Your task to perform on an android device: turn off sleep mode Image 0: 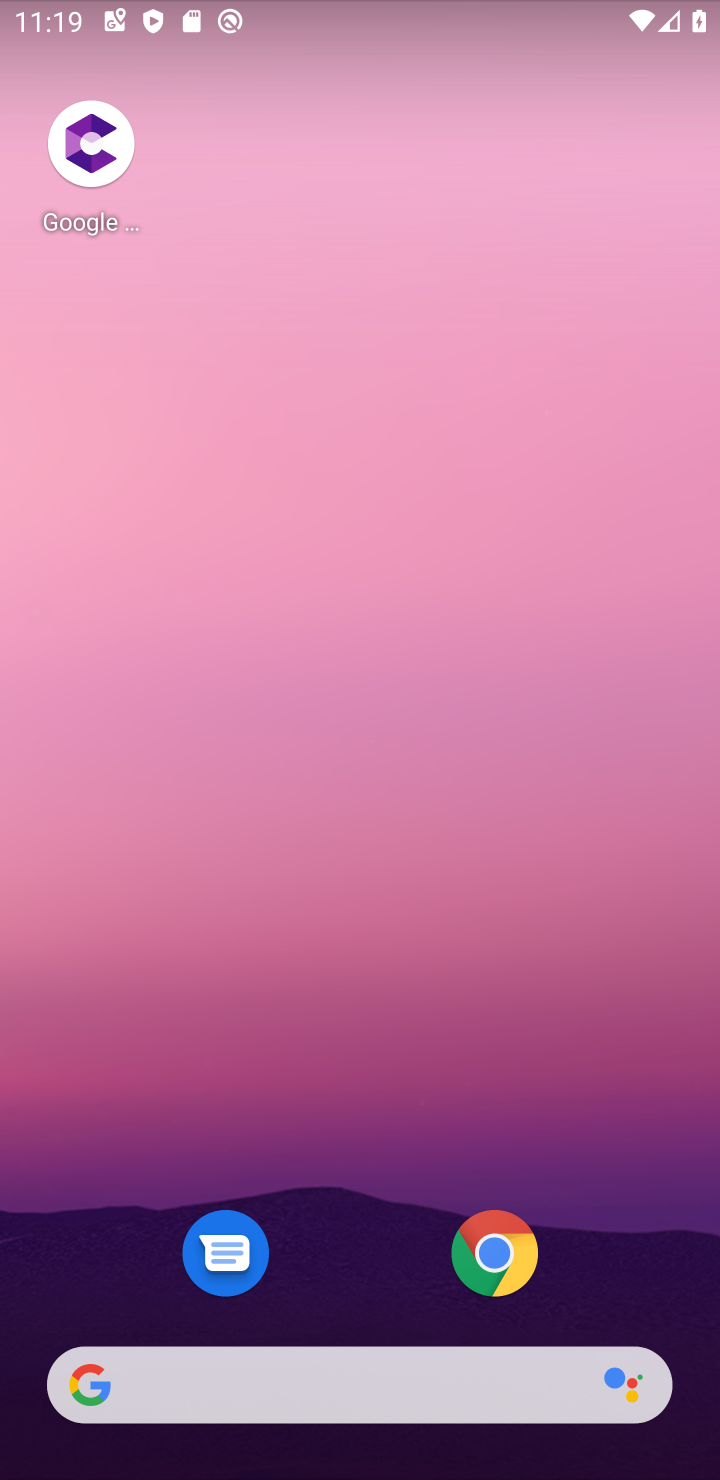
Step 0: drag from (307, 1174) to (468, 269)
Your task to perform on an android device: turn off sleep mode Image 1: 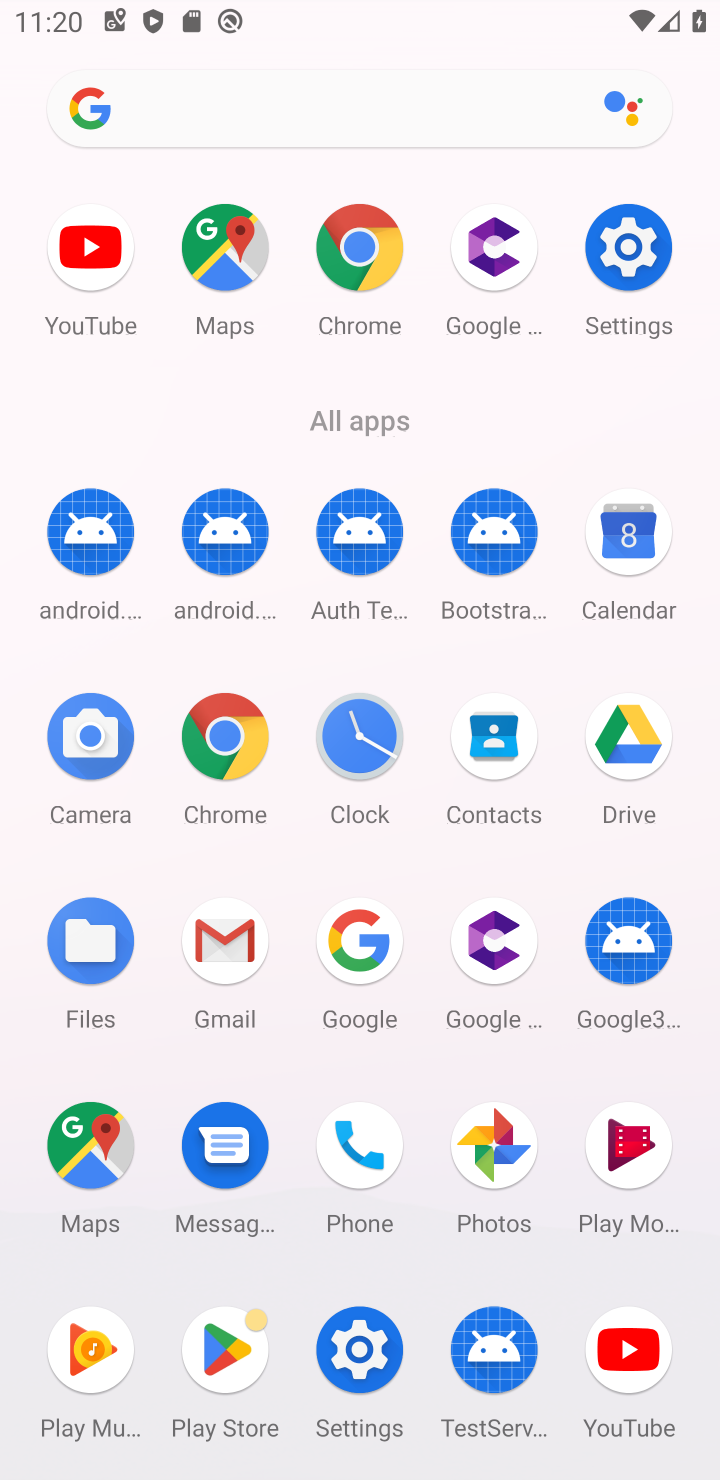
Step 1: click (630, 224)
Your task to perform on an android device: turn off sleep mode Image 2: 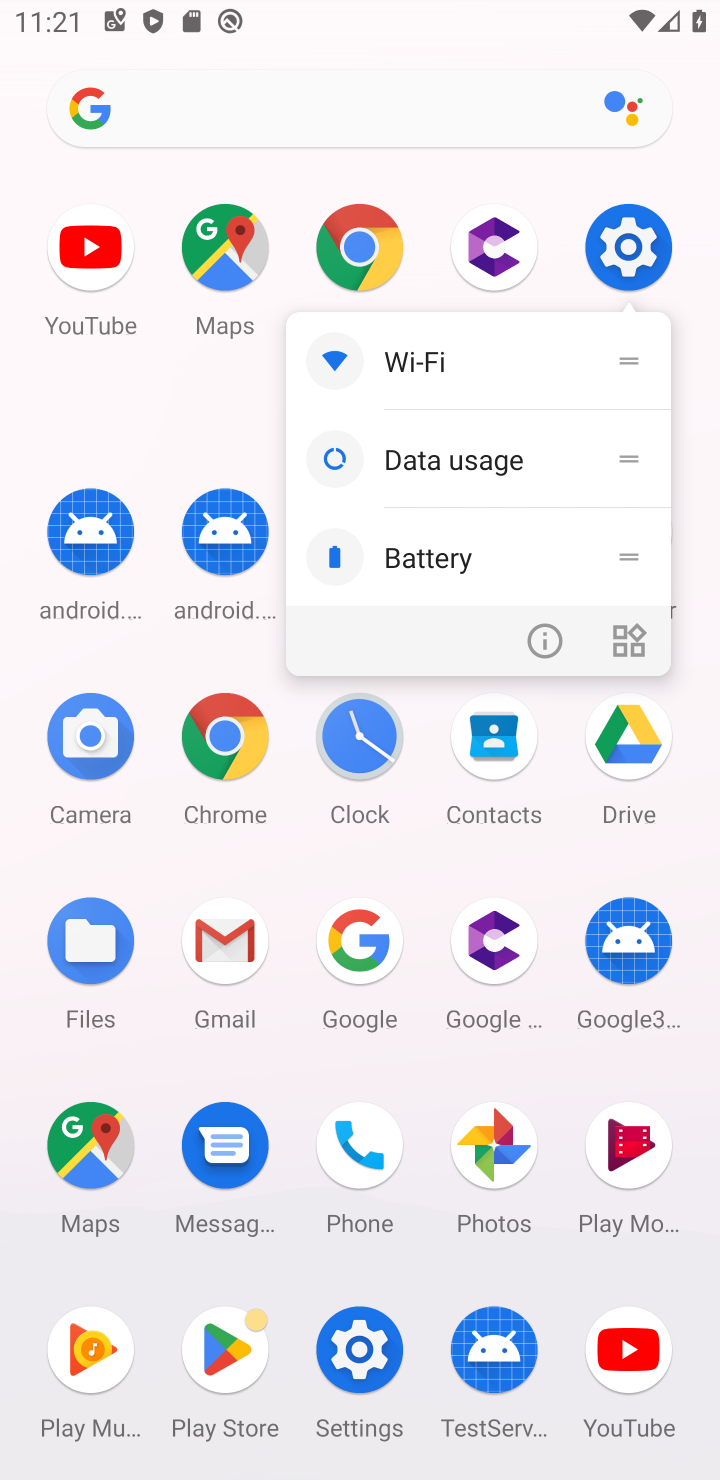
Step 2: click (603, 261)
Your task to perform on an android device: turn off sleep mode Image 3: 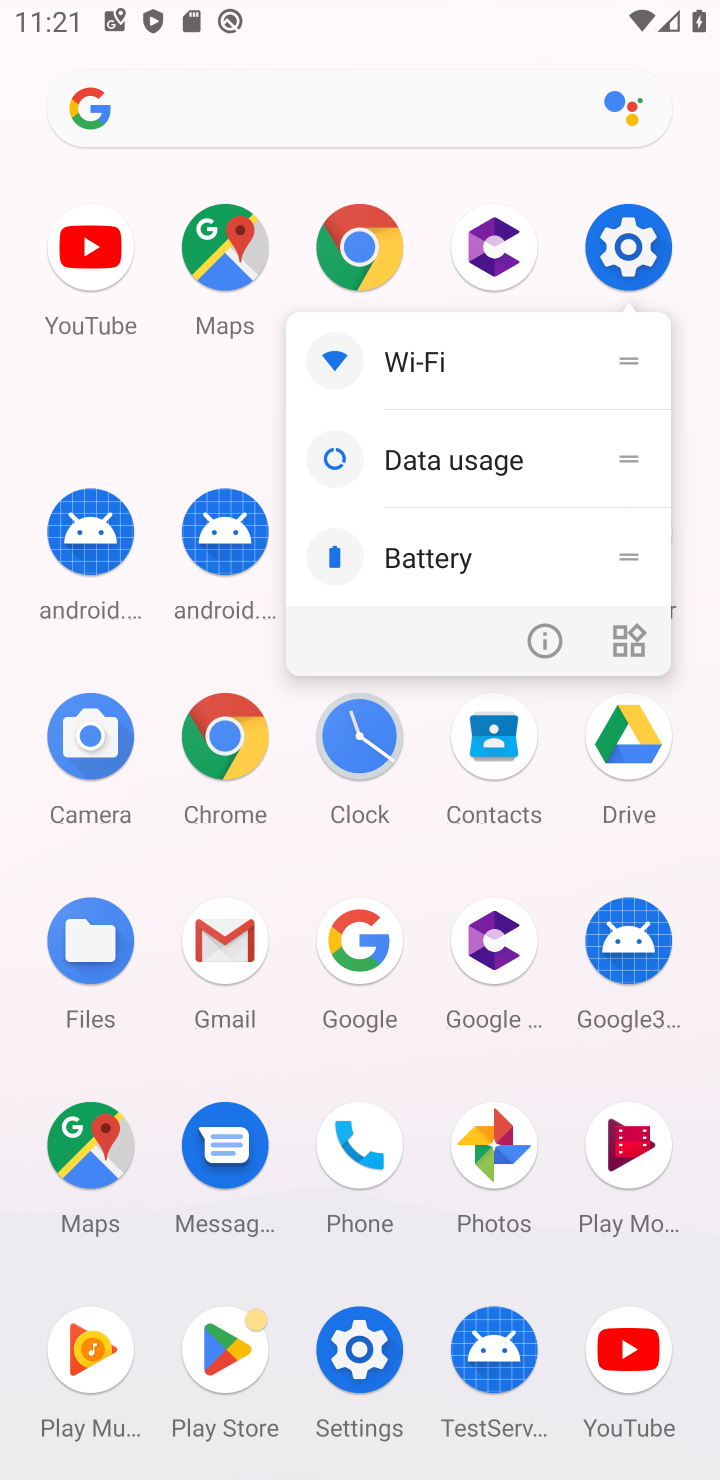
Step 3: click (625, 218)
Your task to perform on an android device: turn off sleep mode Image 4: 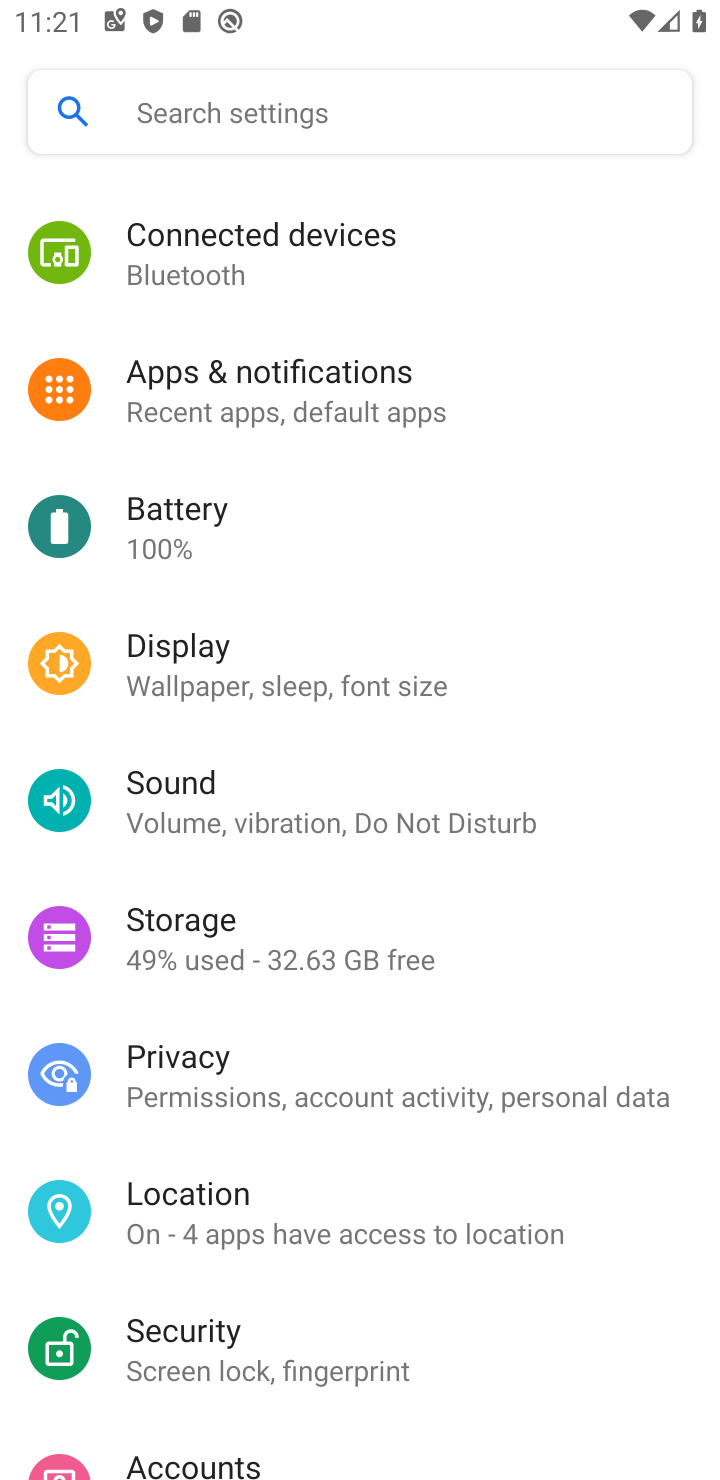
Step 4: task complete